Your task to perform on an android device: Turn on the flashlight Image 0: 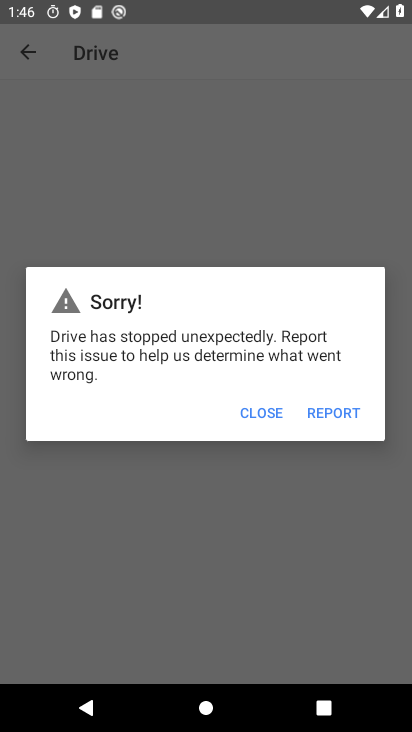
Step 0: press home button
Your task to perform on an android device: Turn on the flashlight Image 1: 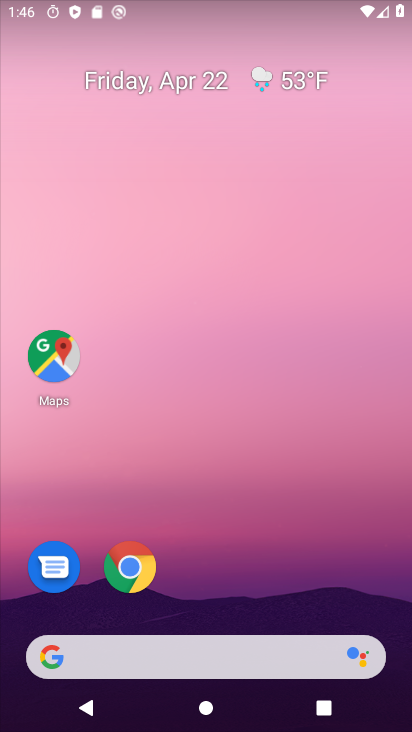
Step 1: drag from (305, 509) to (325, 72)
Your task to perform on an android device: Turn on the flashlight Image 2: 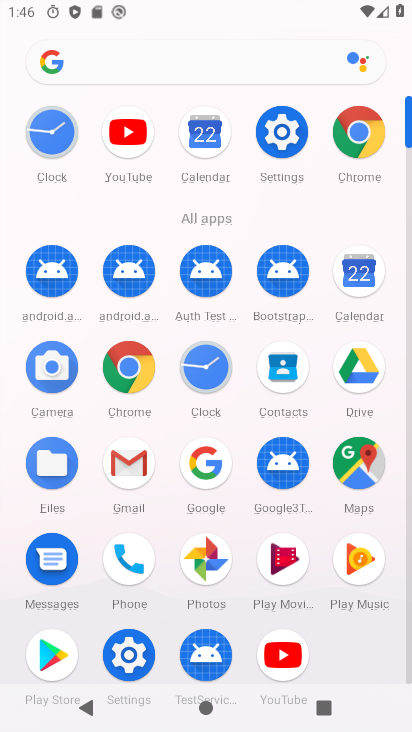
Step 2: click (288, 135)
Your task to perform on an android device: Turn on the flashlight Image 3: 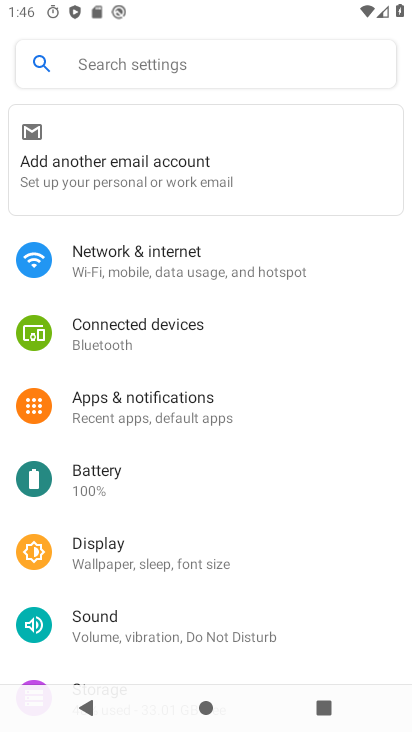
Step 3: click (262, 56)
Your task to perform on an android device: Turn on the flashlight Image 4: 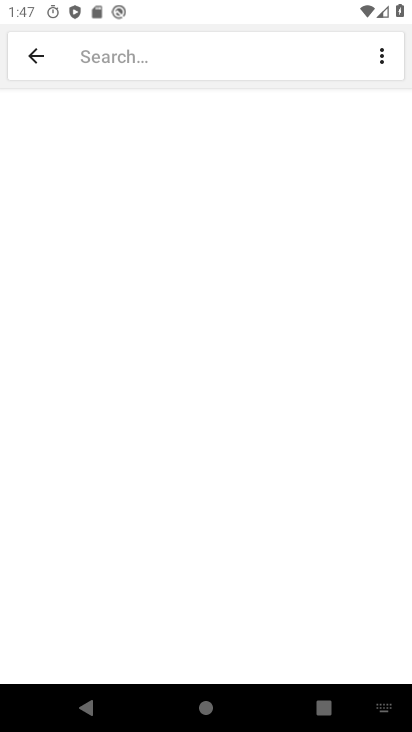
Step 4: type "Flashlight"
Your task to perform on an android device: Turn on the flashlight Image 5: 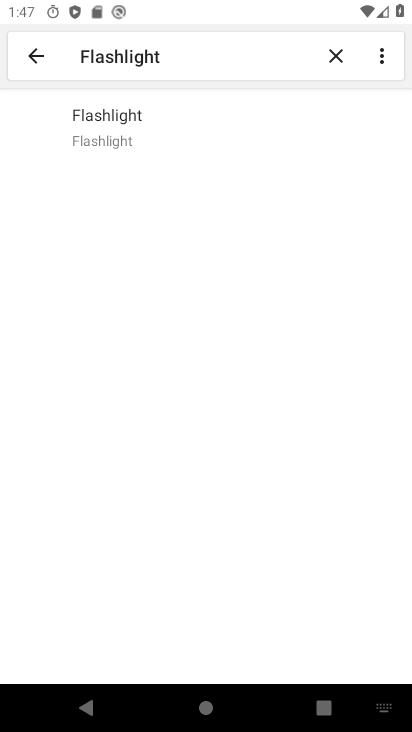
Step 5: click (116, 116)
Your task to perform on an android device: Turn on the flashlight Image 6: 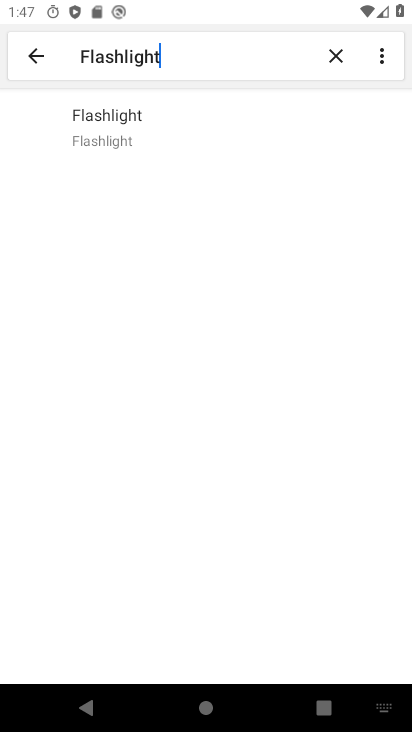
Step 6: task complete